Your task to perform on an android device: change the upload size in google photos Image 0: 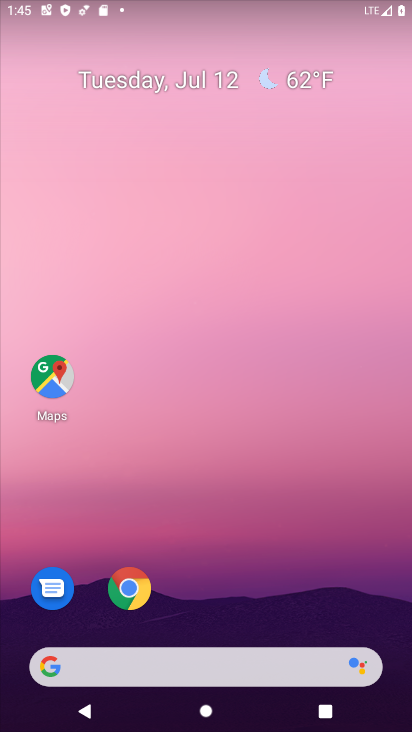
Step 0: drag from (142, 616) to (214, 190)
Your task to perform on an android device: change the upload size in google photos Image 1: 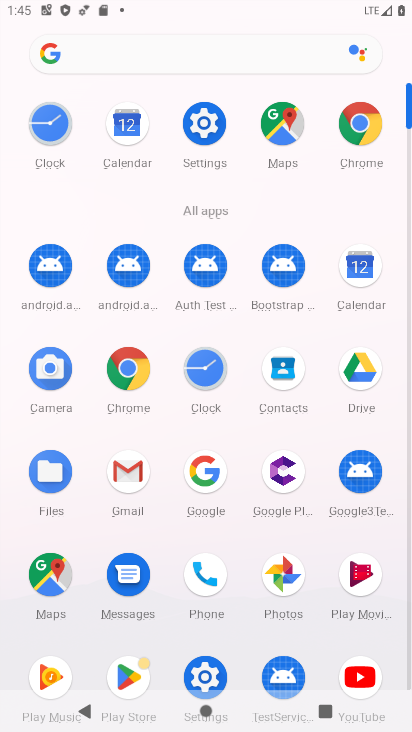
Step 1: click (280, 570)
Your task to perform on an android device: change the upload size in google photos Image 2: 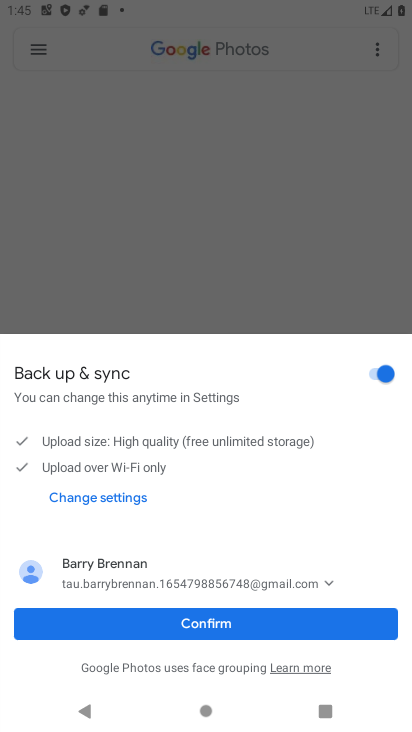
Step 2: click (245, 632)
Your task to perform on an android device: change the upload size in google photos Image 3: 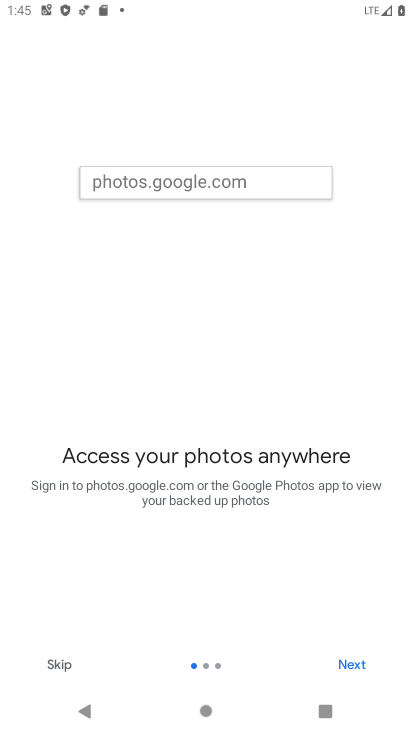
Step 3: click (74, 661)
Your task to perform on an android device: change the upload size in google photos Image 4: 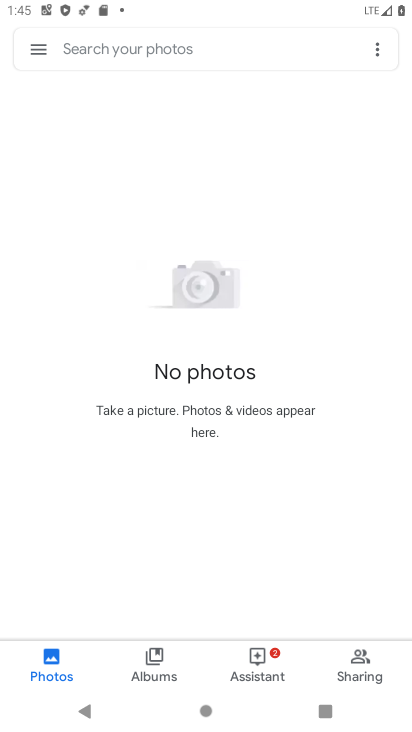
Step 4: click (37, 50)
Your task to perform on an android device: change the upload size in google photos Image 5: 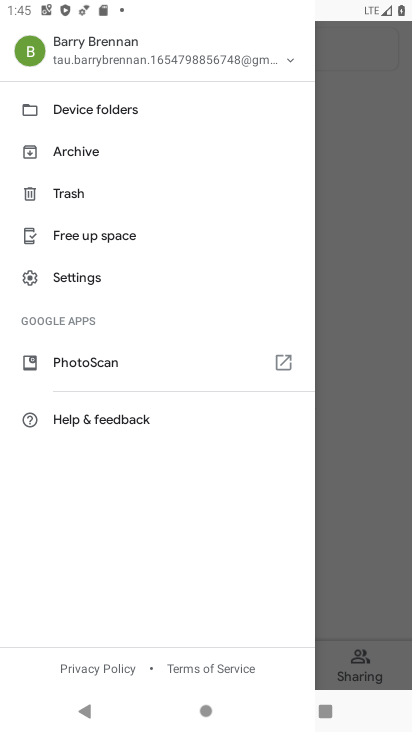
Step 5: click (112, 274)
Your task to perform on an android device: change the upload size in google photos Image 6: 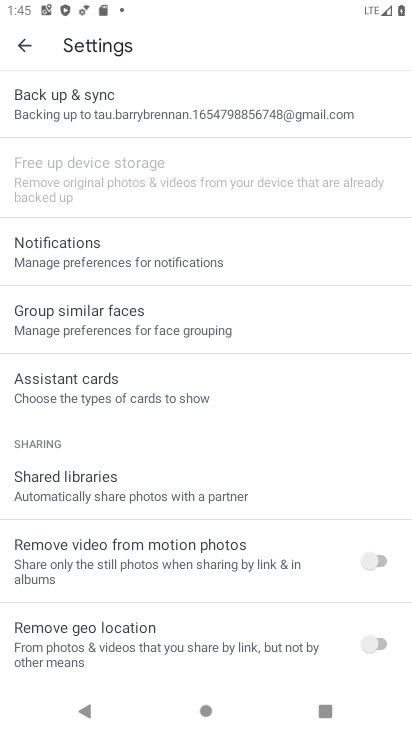
Step 6: click (249, 93)
Your task to perform on an android device: change the upload size in google photos Image 7: 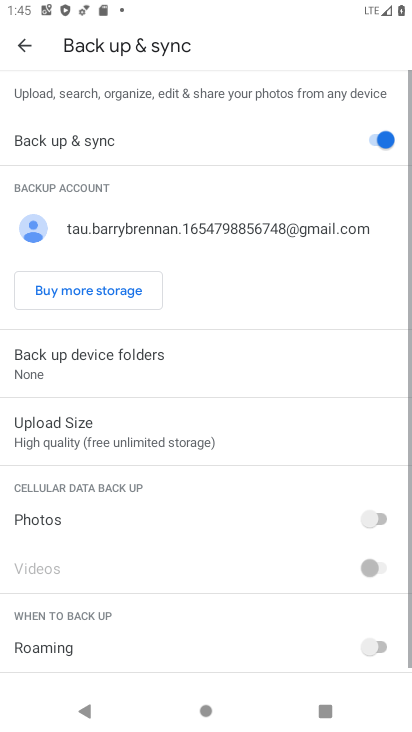
Step 7: click (130, 434)
Your task to perform on an android device: change the upload size in google photos Image 8: 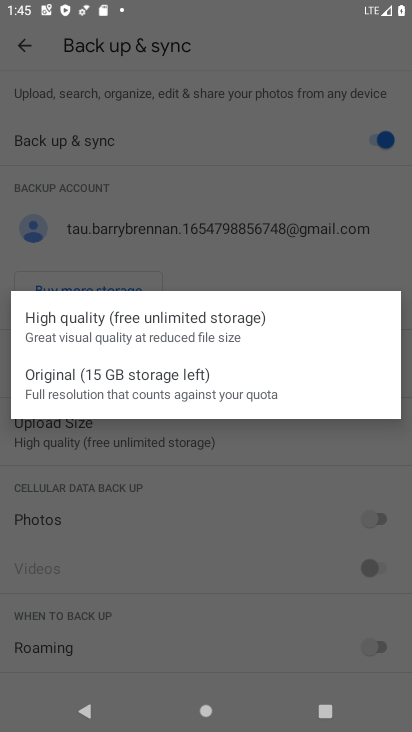
Step 8: click (214, 376)
Your task to perform on an android device: change the upload size in google photos Image 9: 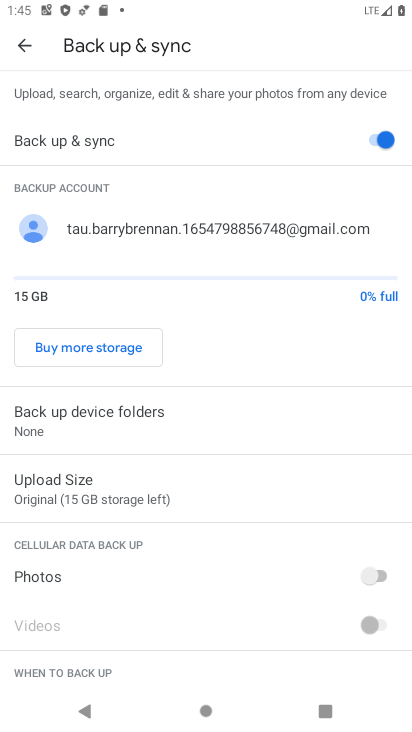
Step 9: task complete